Your task to perform on an android device: add a contact Image 0: 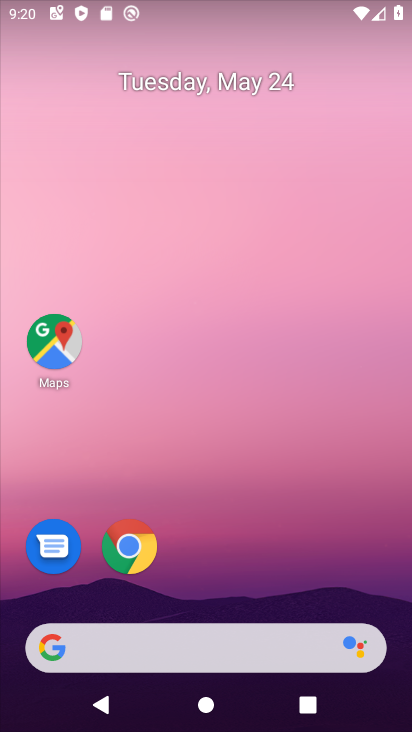
Step 0: drag from (236, 570) to (272, 54)
Your task to perform on an android device: add a contact Image 1: 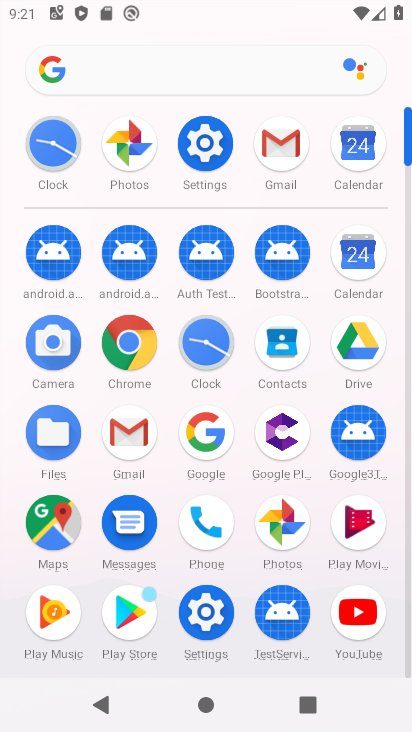
Step 1: click (275, 350)
Your task to perform on an android device: add a contact Image 2: 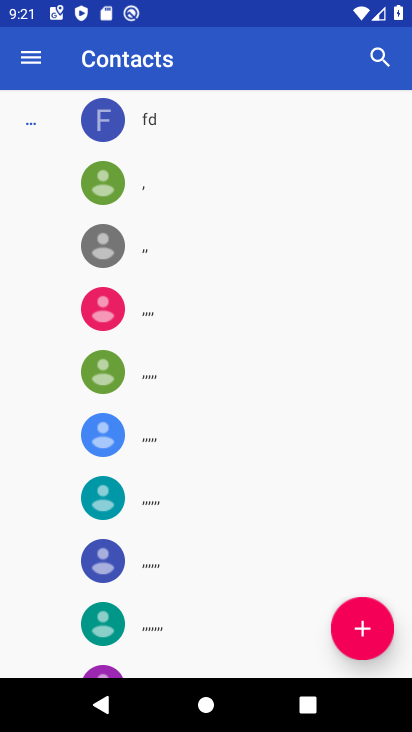
Step 2: click (356, 622)
Your task to perform on an android device: add a contact Image 3: 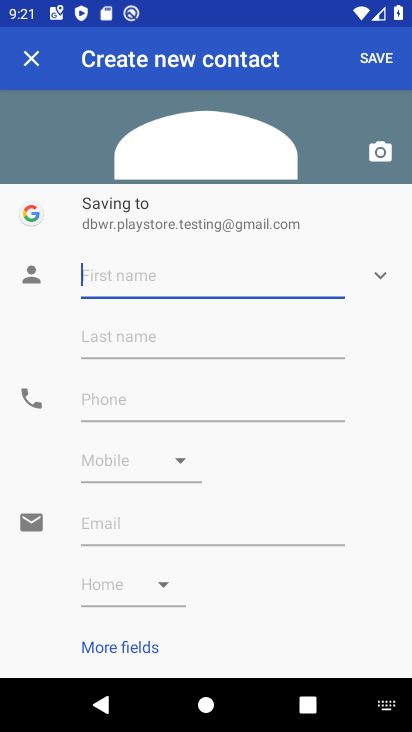
Step 3: type "Ram"
Your task to perform on an android device: add a contact Image 4: 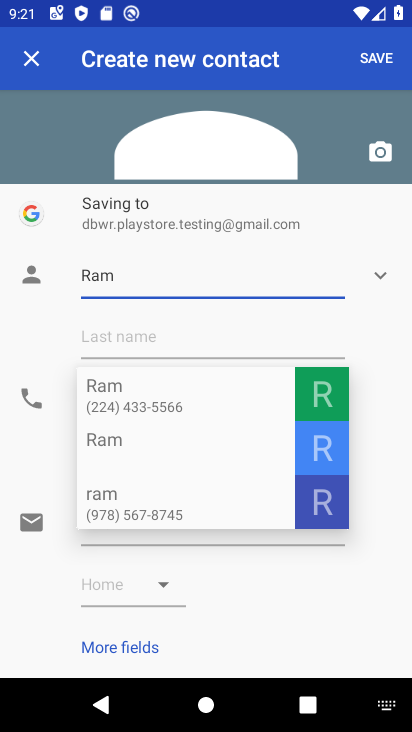
Step 4: type " jo"
Your task to perform on an android device: add a contact Image 5: 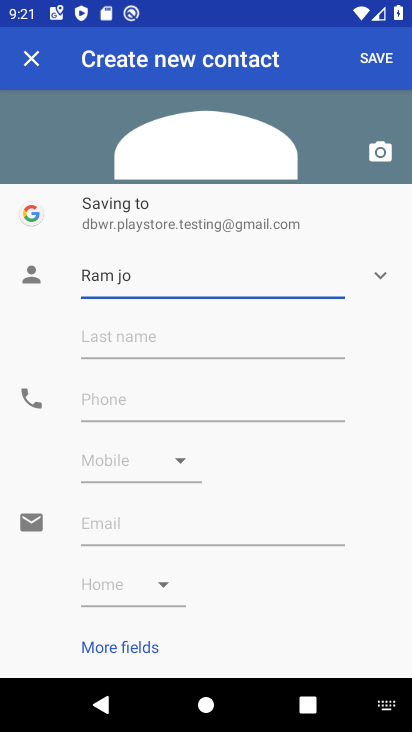
Step 5: click (171, 406)
Your task to perform on an android device: add a contact Image 6: 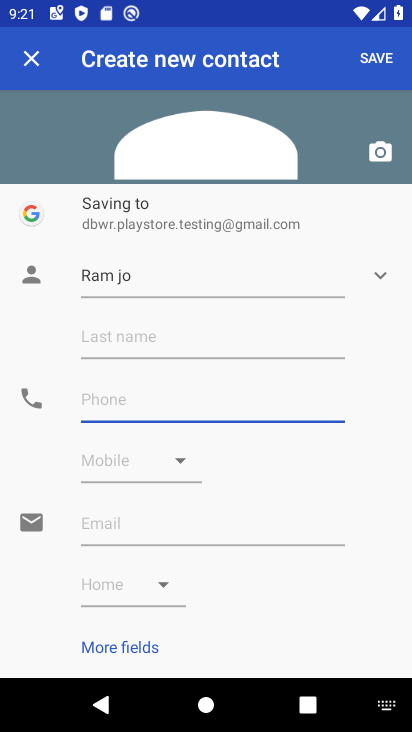
Step 6: type "011222446688"
Your task to perform on an android device: add a contact Image 7: 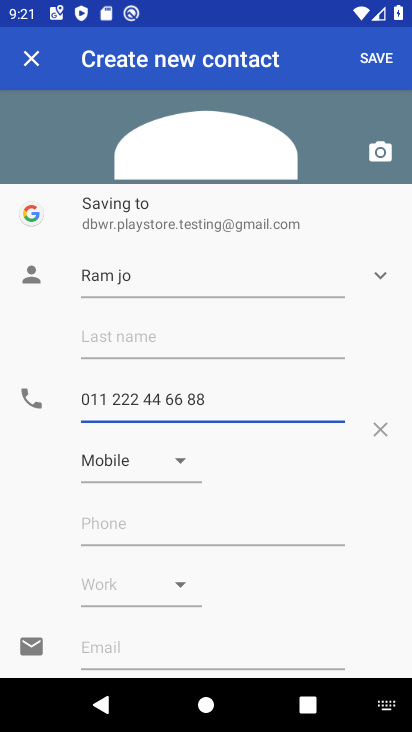
Step 7: click (381, 58)
Your task to perform on an android device: add a contact Image 8: 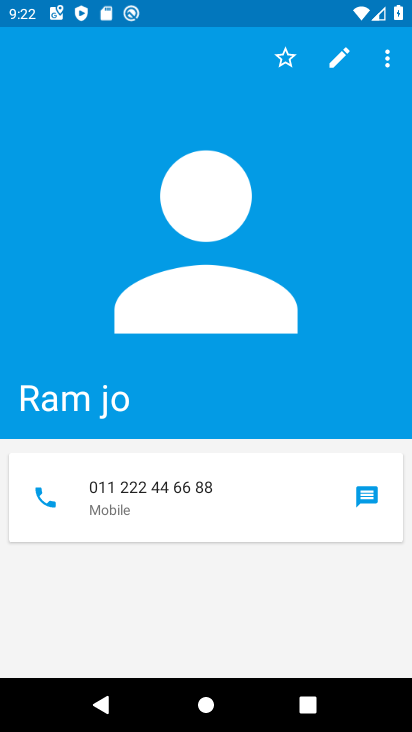
Step 8: task complete